Your task to perform on an android device: Open calendar and show me the third week of next month Image 0: 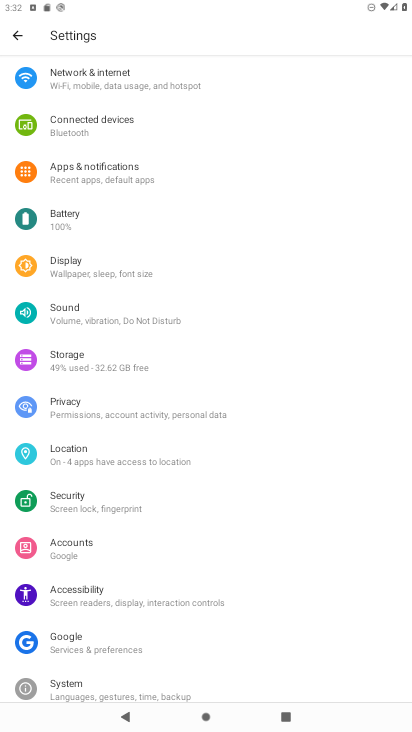
Step 0: press home button
Your task to perform on an android device: Open calendar and show me the third week of next month Image 1: 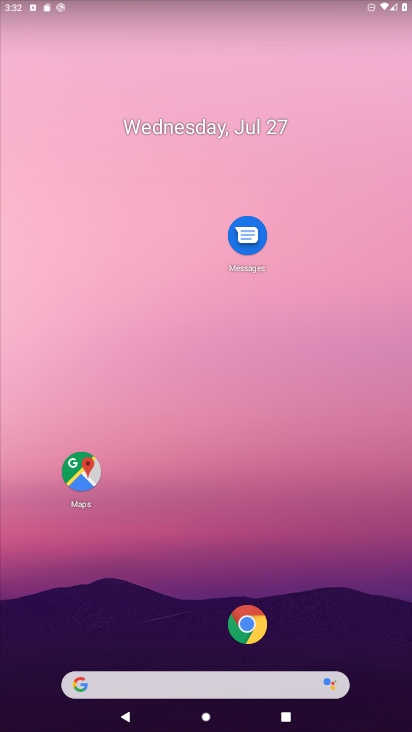
Step 1: click (185, 118)
Your task to perform on an android device: Open calendar and show me the third week of next month Image 2: 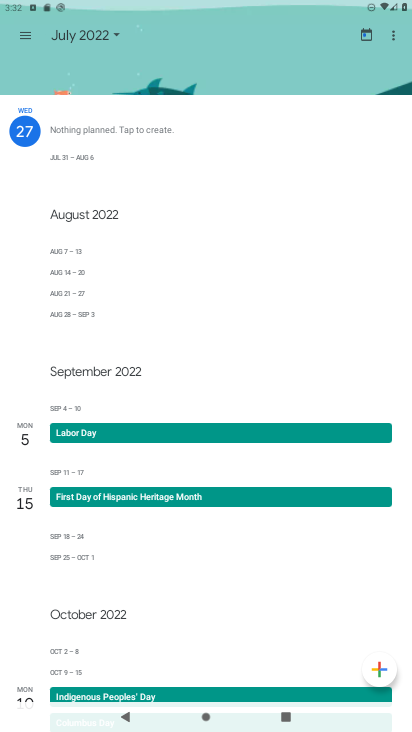
Step 2: click (62, 30)
Your task to perform on an android device: Open calendar and show me the third week of next month Image 3: 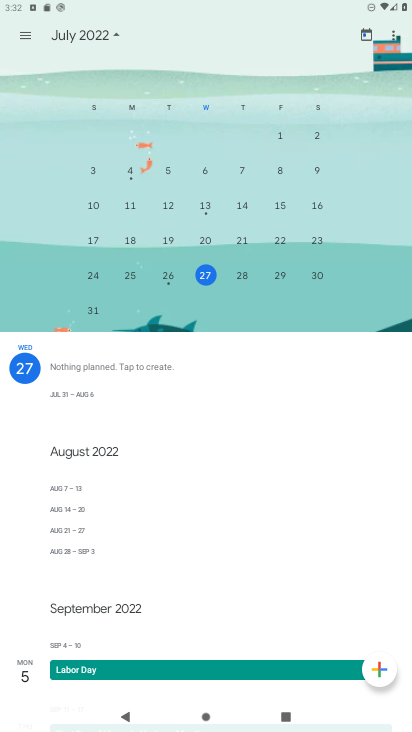
Step 3: drag from (347, 220) to (70, 290)
Your task to perform on an android device: Open calendar and show me the third week of next month Image 4: 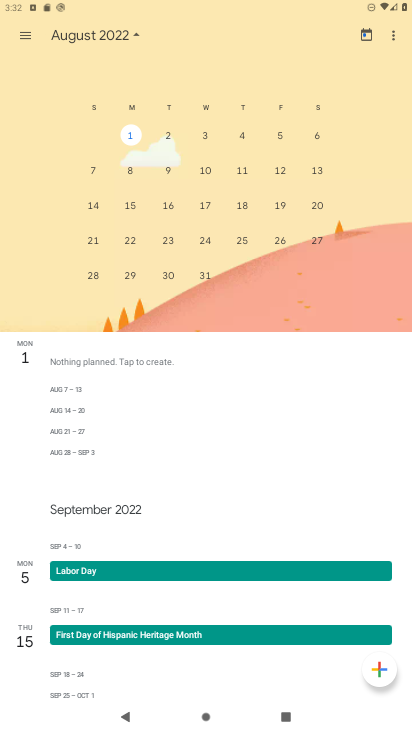
Step 4: click (138, 208)
Your task to perform on an android device: Open calendar and show me the third week of next month Image 5: 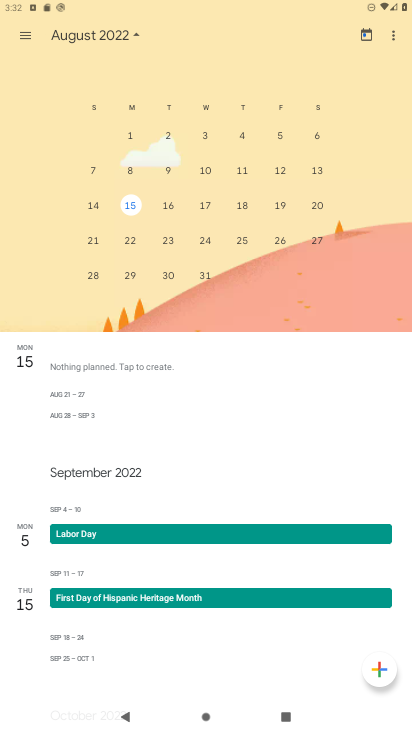
Step 5: task complete